Your task to perform on an android device: find snoozed emails in the gmail app Image 0: 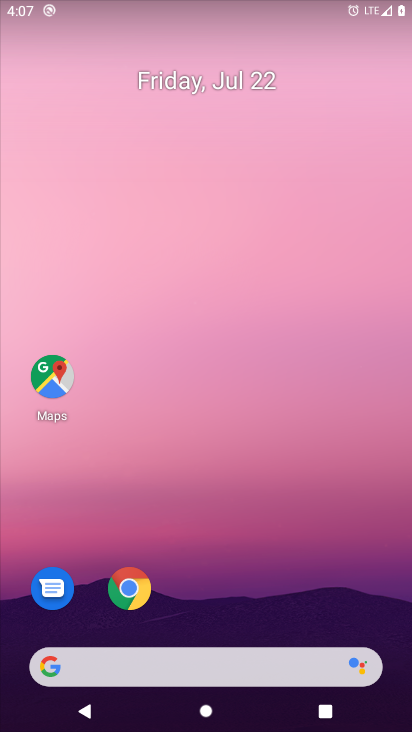
Step 0: drag from (259, 596) to (301, 42)
Your task to perform on an android device: find snoozed emails in the gmail app Image 1: 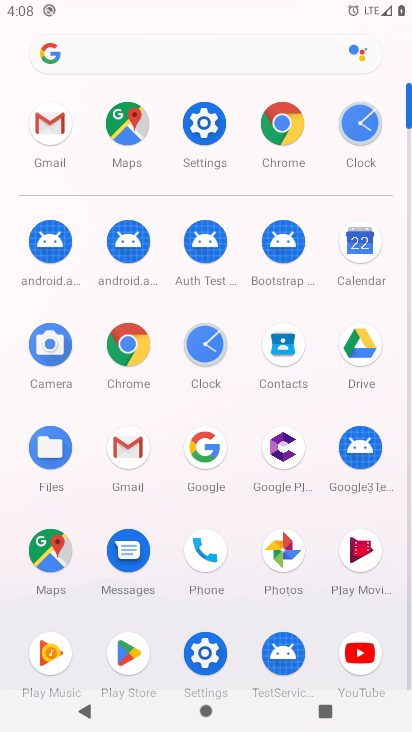
Step 1: click (130, 444)
Your task to perform on an android device: find snoozed emails in the gmail app Image 2: 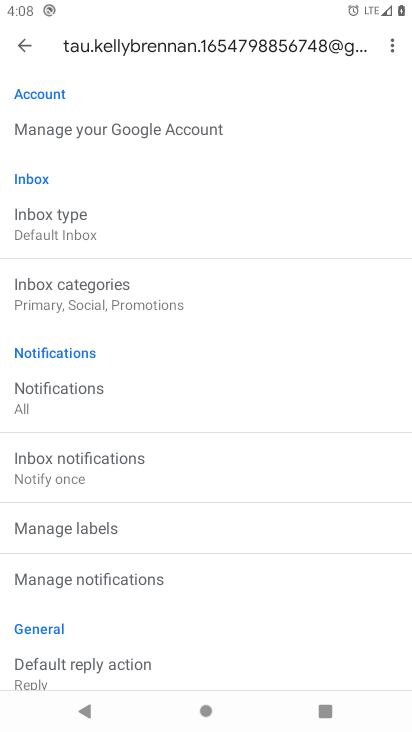
Step 2: drag from (213, 534) to (223, 219)
Your task to perform on an android device: find snoozed emails in the gmail app Image 3: 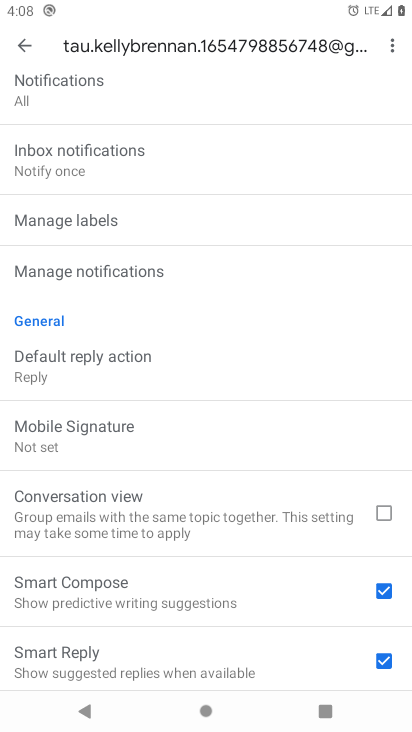
Step 3: drag from (230, 649) to (261, 281)
Your task to perform on an android device: find snoozed emails in the gmail app Image 4: 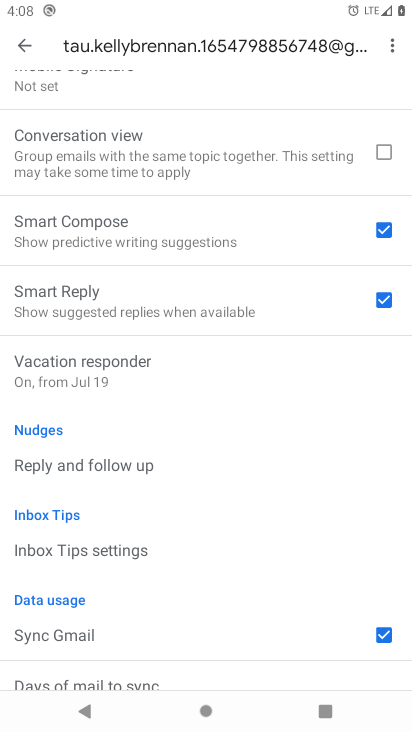
Step 4: drag from (200, 183) to (196, 382)
Your task to perform on an android device: find snoozed emails in the gmail app Image 5: 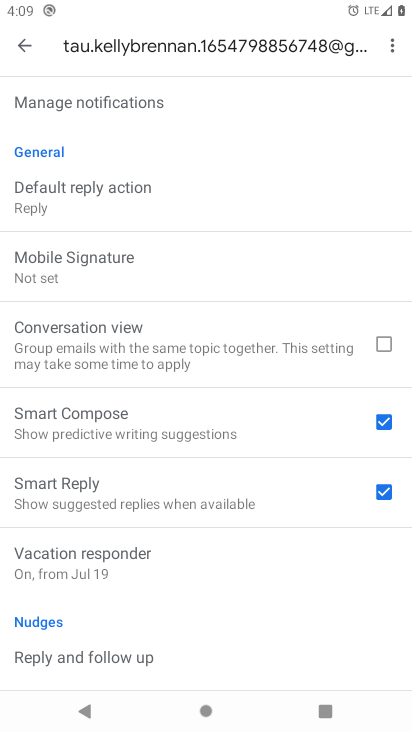
Step 5: click (28, 46)
Your task to perform on an android device: find snoozed emails in the gmail app Image 6: 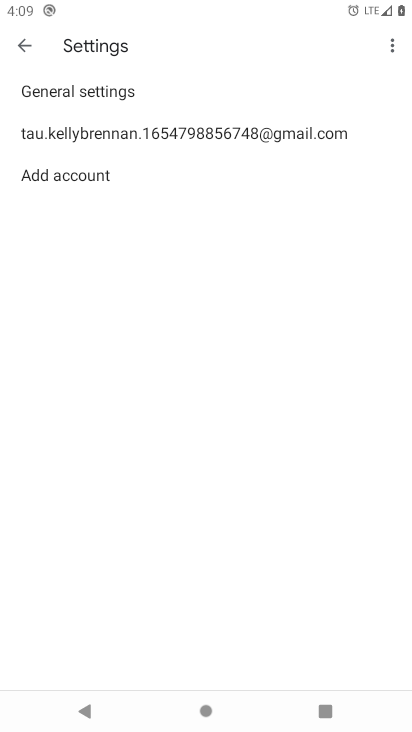
Step 6: click (28, 46)
Your task to perform on an android device: find snoozed emails in the gmail app Image 7: 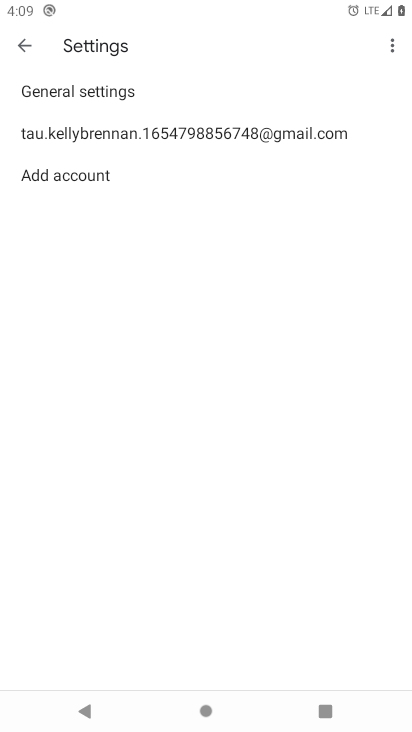
Step 7: click (25, 47)
Your task to perform on an android device: find snoozed emails in the gmail app Image 8: 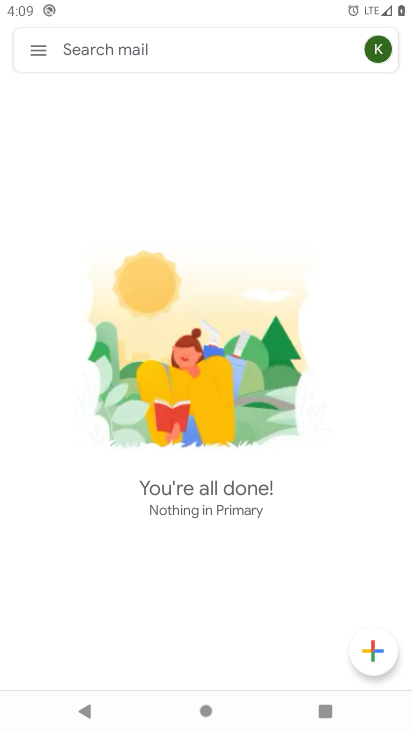
Step 8: click (42, 40)
Your task to perform on an android device: find snoozed emails in the gmail app Image 9: 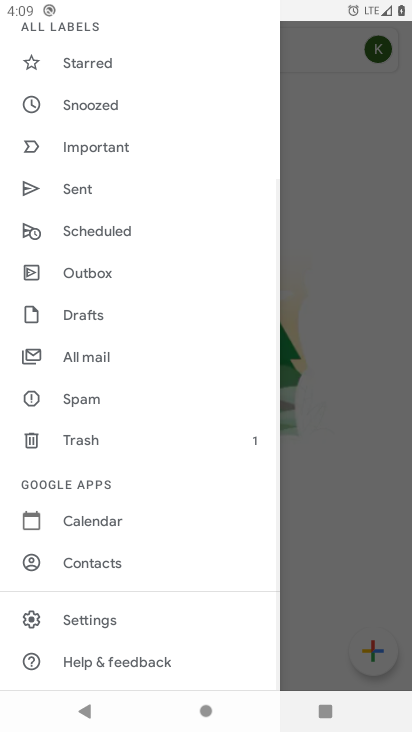
Step 9: drag from (180, 562) to (186, 257)
Your task to perform on an android device: find snoozed emails in the gmail app Image 10: 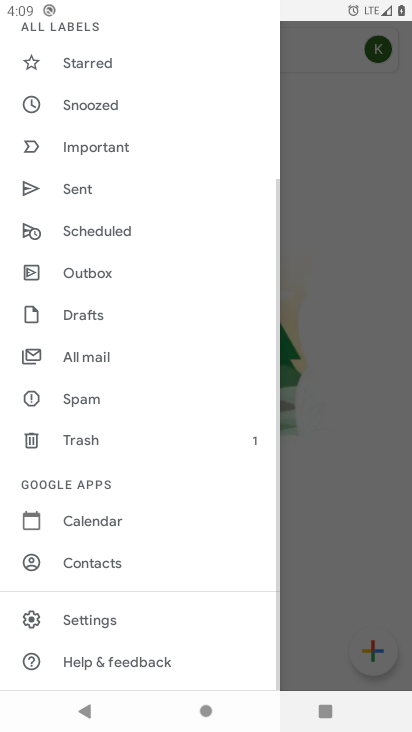
Step 10: click (171, 147)
Your task to perform on an android device: find snoozed emails in the gmail app Image 11: 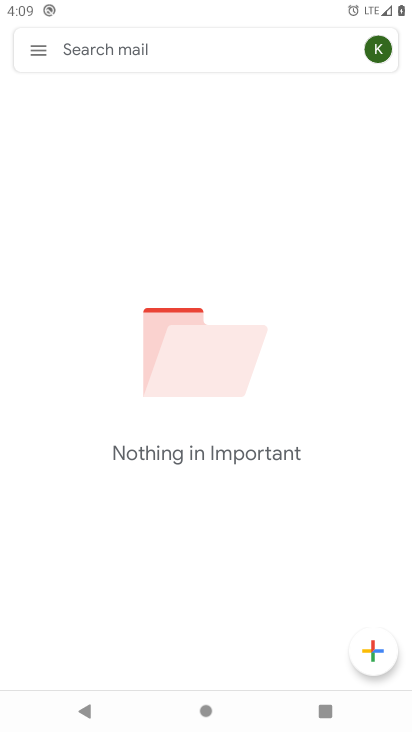
Step 11: click (27, 45)
Your task to perform on an android device: find snoozed emails in the gmail app Image 12: 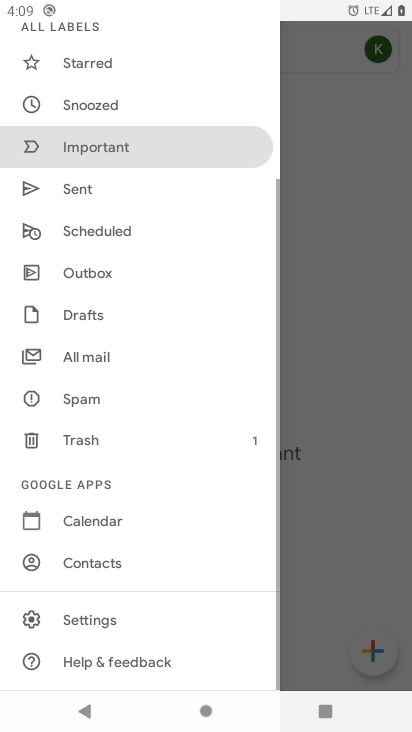
Step 12: click (85, 99)
Your task to perform on an android device: find snoozed emails in the gmail app Image 13: 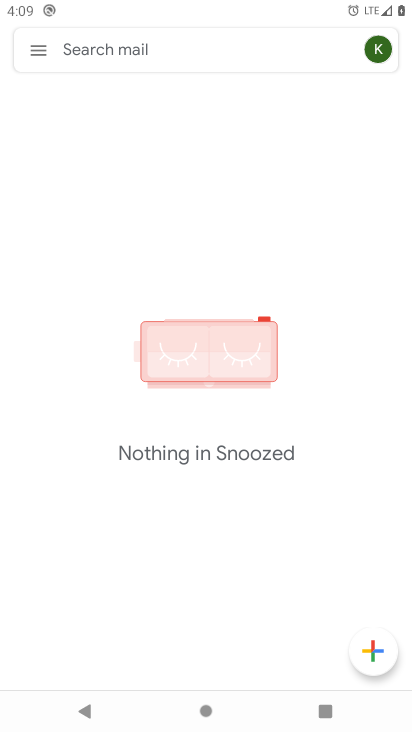
Step 13: task complete